Your task to perform on an android device: change the clock display to show seconds Image 0: 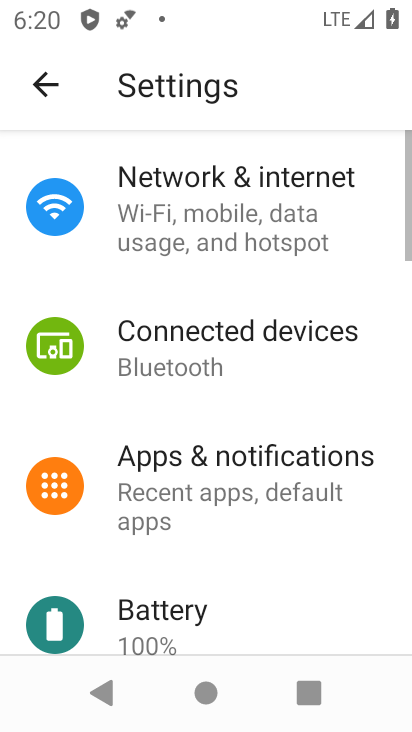
Step 0: press home button
Your task to perform on an android device: change the clock display to show seconds Image 1: 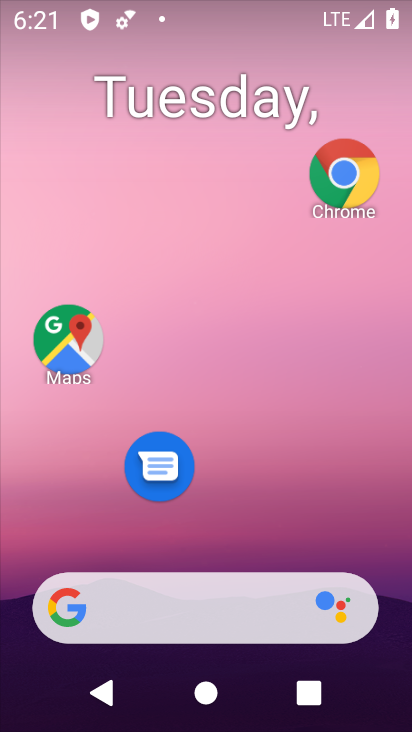
Step 1: drag from (403, 637) to (356, 67)
Your task to perform on an android device: change the clock display to show seconds Image 2: 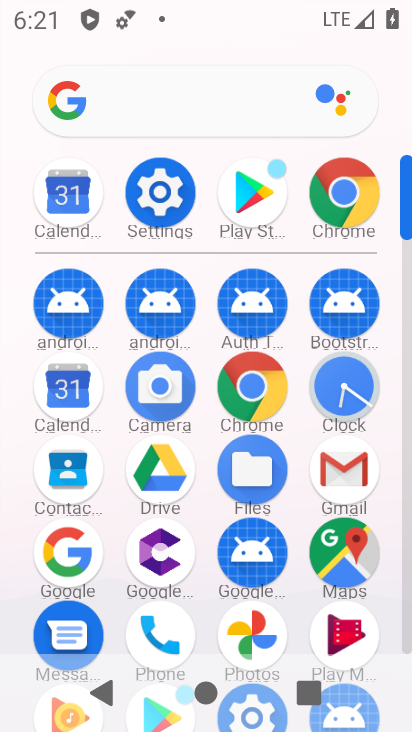
Step 2: click (347, 396)
Your task to perform on an android device: change the clock display to show seconds Image 3: 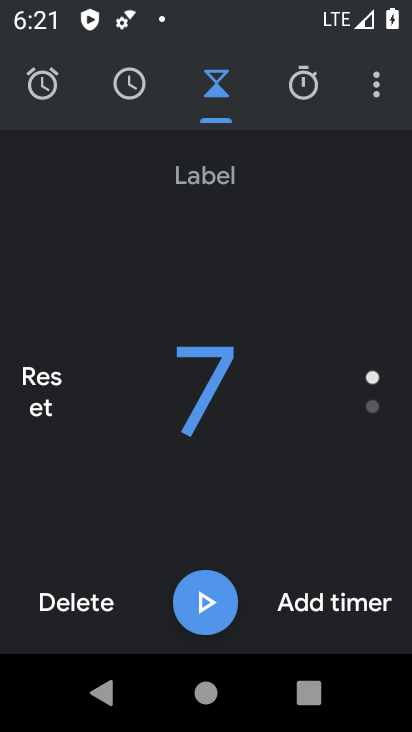
Step 3: click (382, 64)
Your task to perform on an android device: change the clock display to show seconds Image 4: 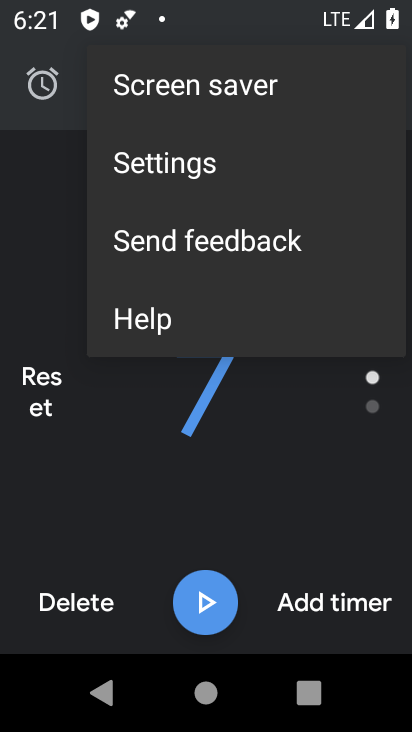
Step 4: click (192, 141)
Your task to perform on an android device: change the clock display to show seconds Image 5: 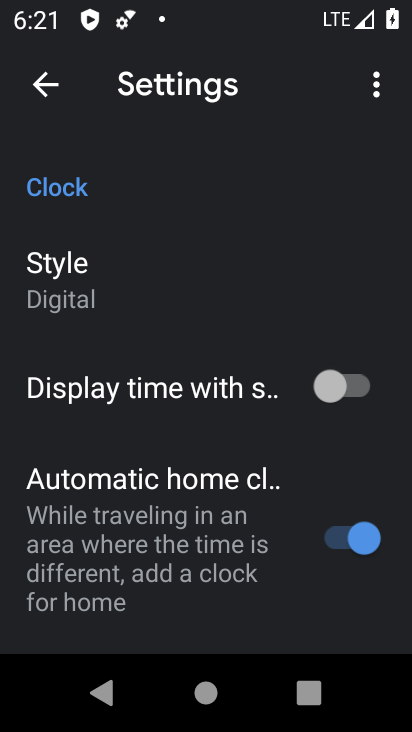
Step 5: click (120, 401)
Your task to perform on an android device: change the clock display to show seconds Image 6: 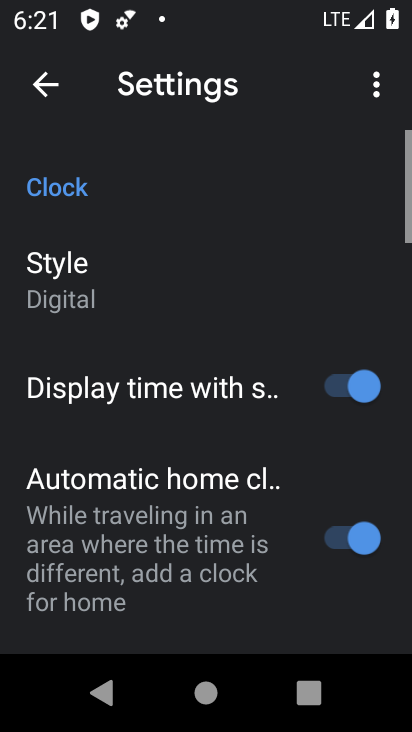
Step 6: task complete